Your task to perform on an android device: Do I have any events tomorrow? Image 0: 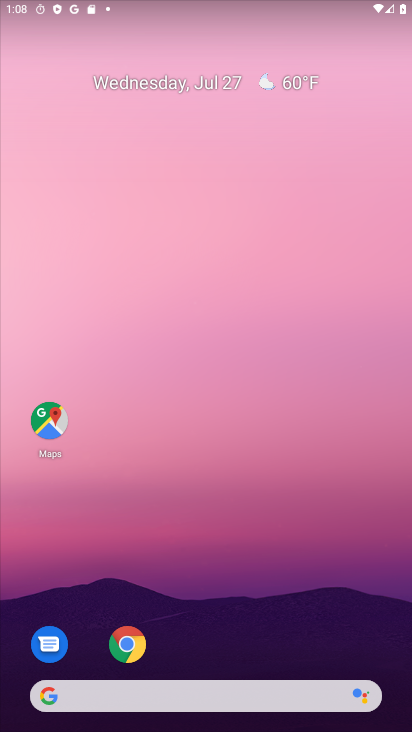
Step 0: drag from (155, 648) to (166, 370)
Your task to perform on an android device: Do I have any events tomorrow? Image 1: 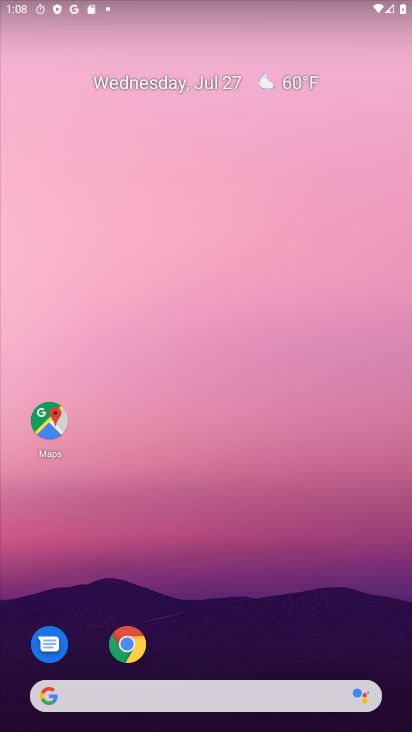
Step 1: drag from (206, 657) to (210, 212)
Your task to perform on an android device: Do I have any events tomorrow? Image 2: 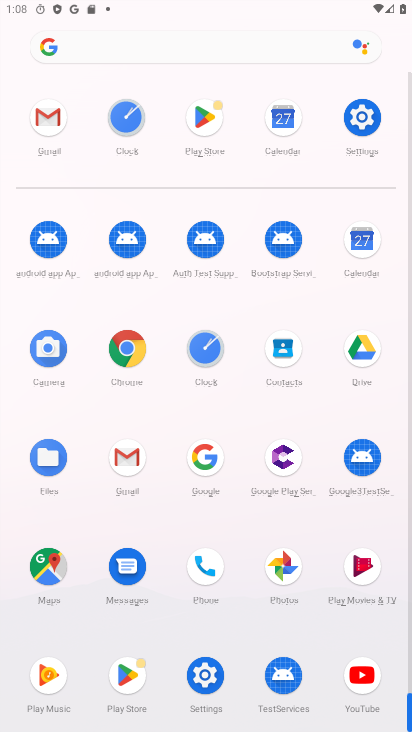
Step 2: click (362, 227)
Your task to perform on an android device: Do I have any events tomorrow? Image 3: 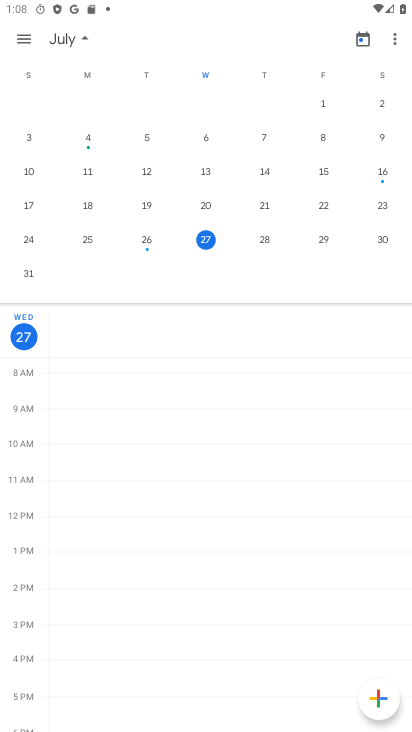
Step 3: click (374, 32)
Your task to perform on an android device: Do I have any events tomorrow? Image 4: 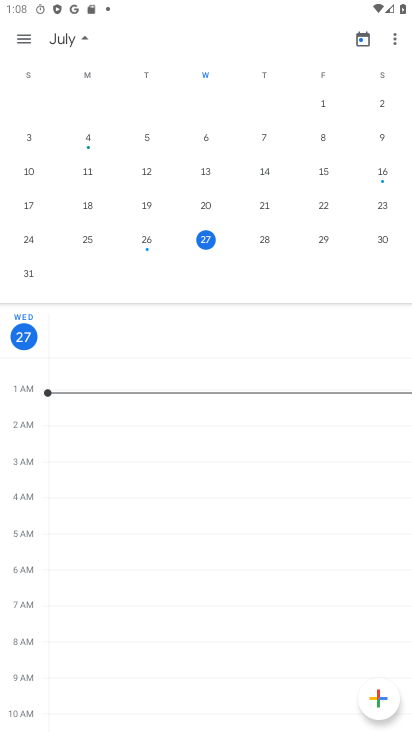
Step 4: drag from (208, 560) to (212, 319)
Your task to perform on an android device: Do I have any events tomorrow? Image 5: 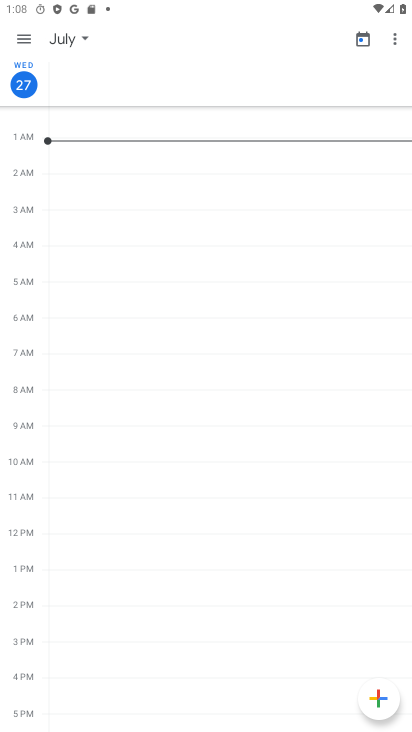
Step 5: drag from (166, 575) to (204, 617)
Your task to perform on an android device: Do I have any events tomorrow? Image 6: 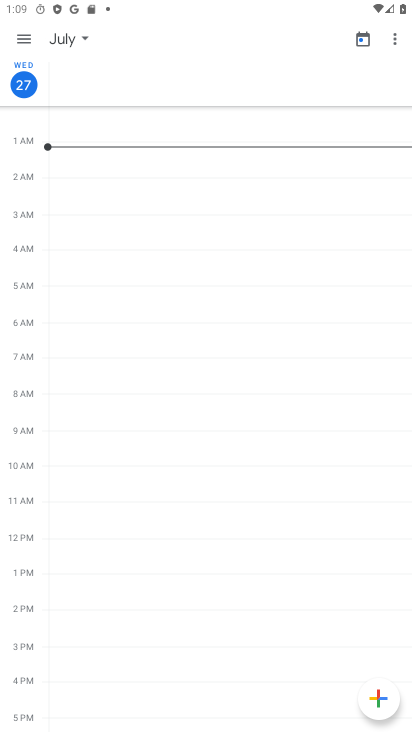
Step 6: click (70, 42)
Your task to perform on an android device: Do I have any events tomorrow? Image 7: 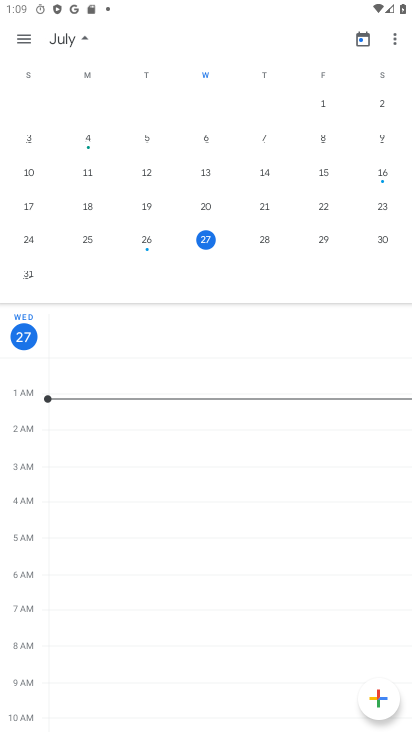
Step 7: click (269, 233)
Your task to perform on an android device: Do I have any events tomorrow? Image 8: 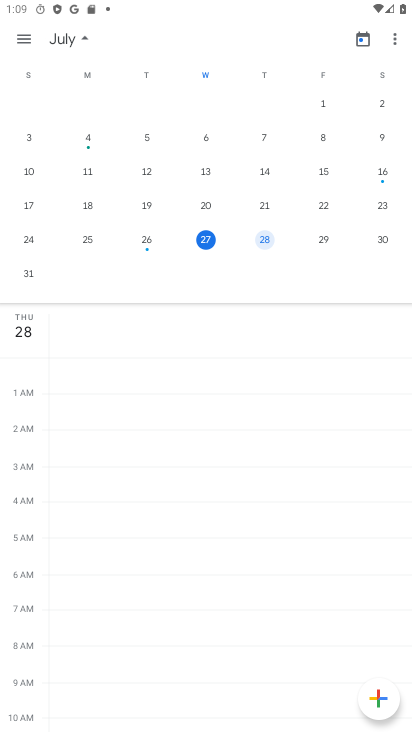
Step 8: task complete